Your task to perform on an android device: turn on javascript in the chrome app Image 0: 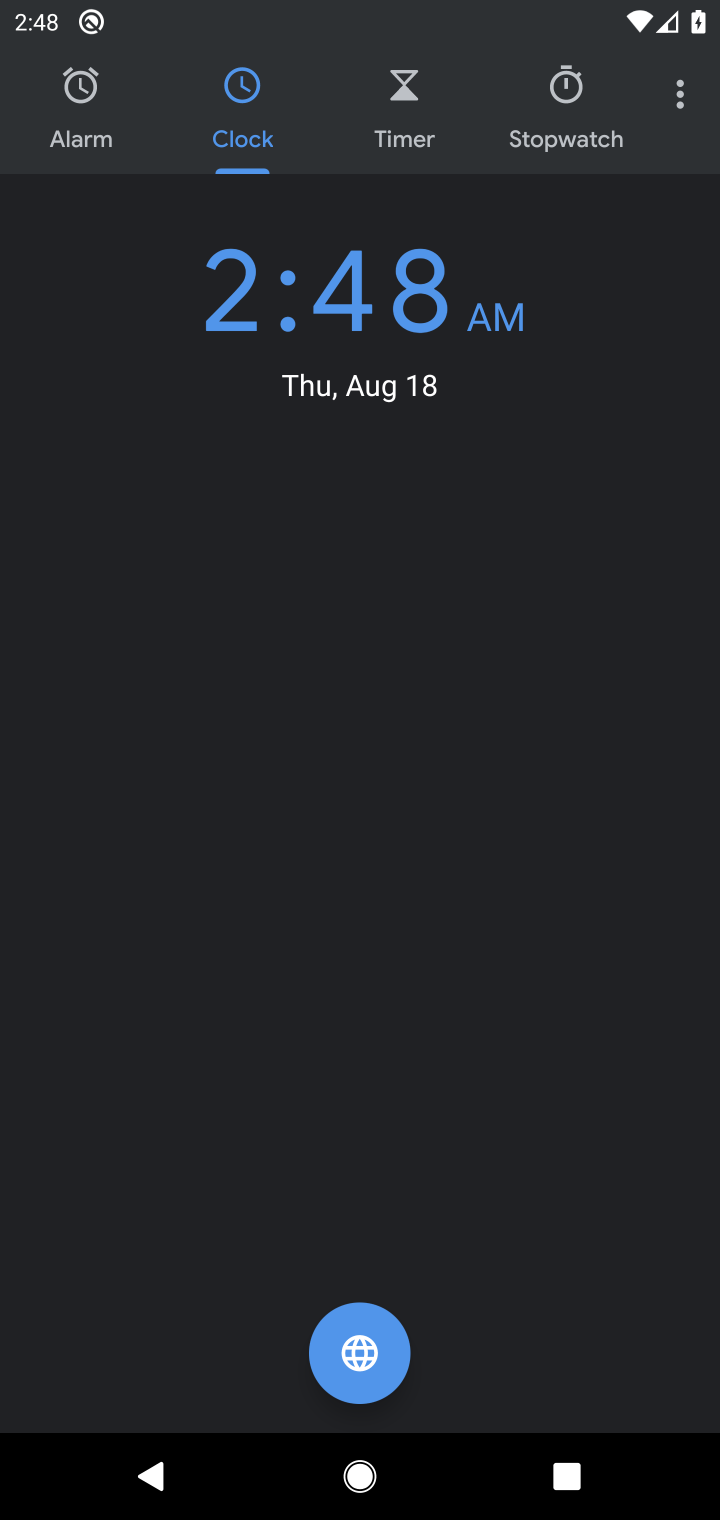
Step 0: press home button
Your task to perform on an android device: turn on javascript in the chrome app Image 1: 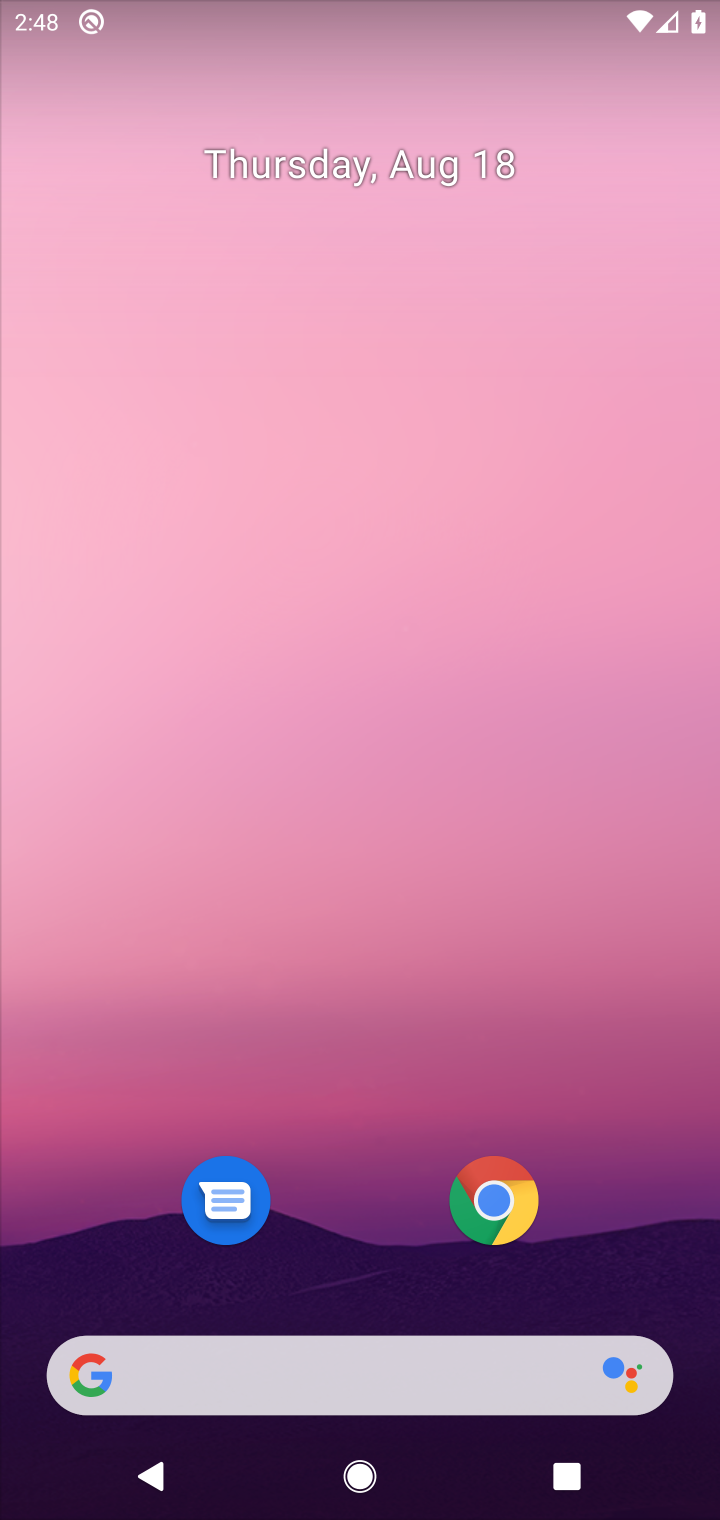
Step 1: drag from (394, 866) to (579, 11)
Your task to perform on an android device: turn on javascript in the chrome app Image 2: 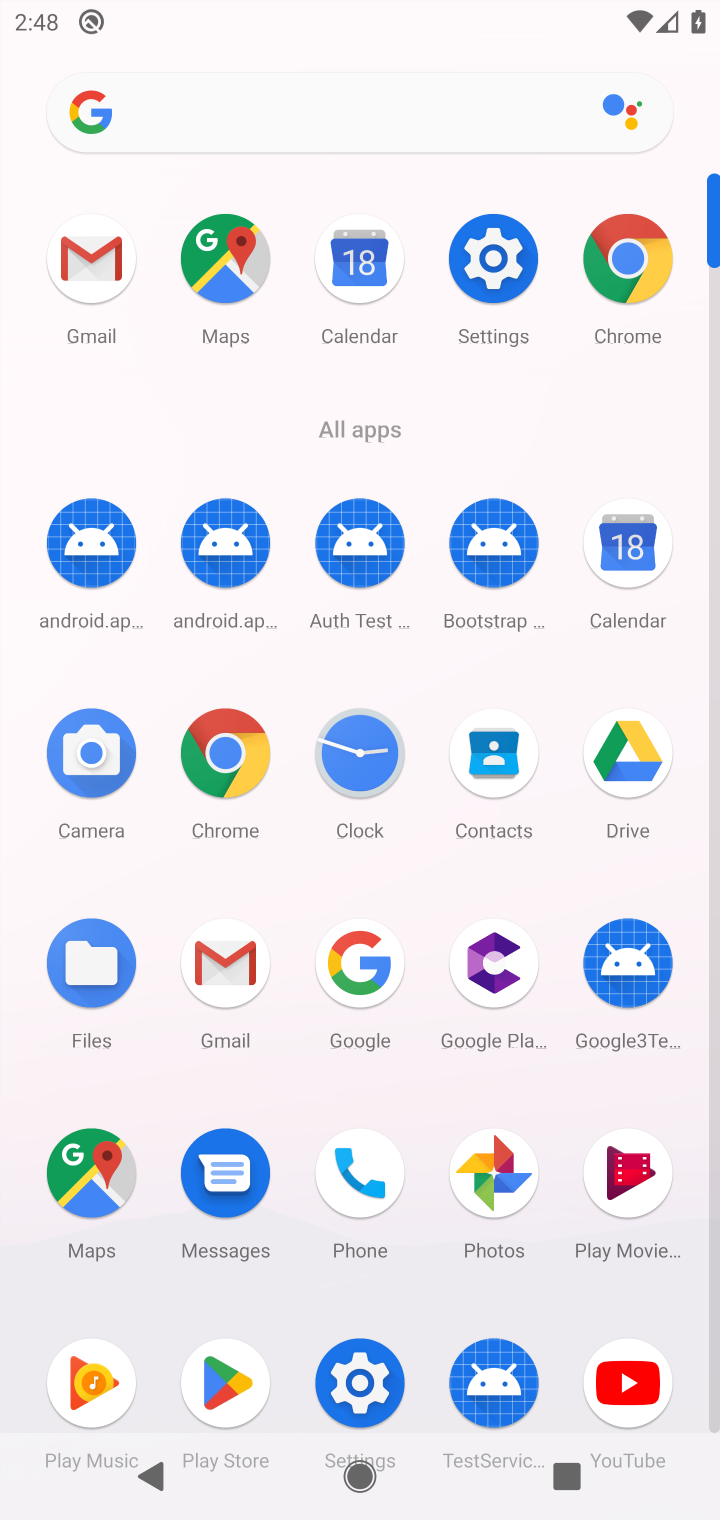
Step 2: click (215, 728)
Your task to perform on an android device: turn on javascript in the chrome app Image 3: 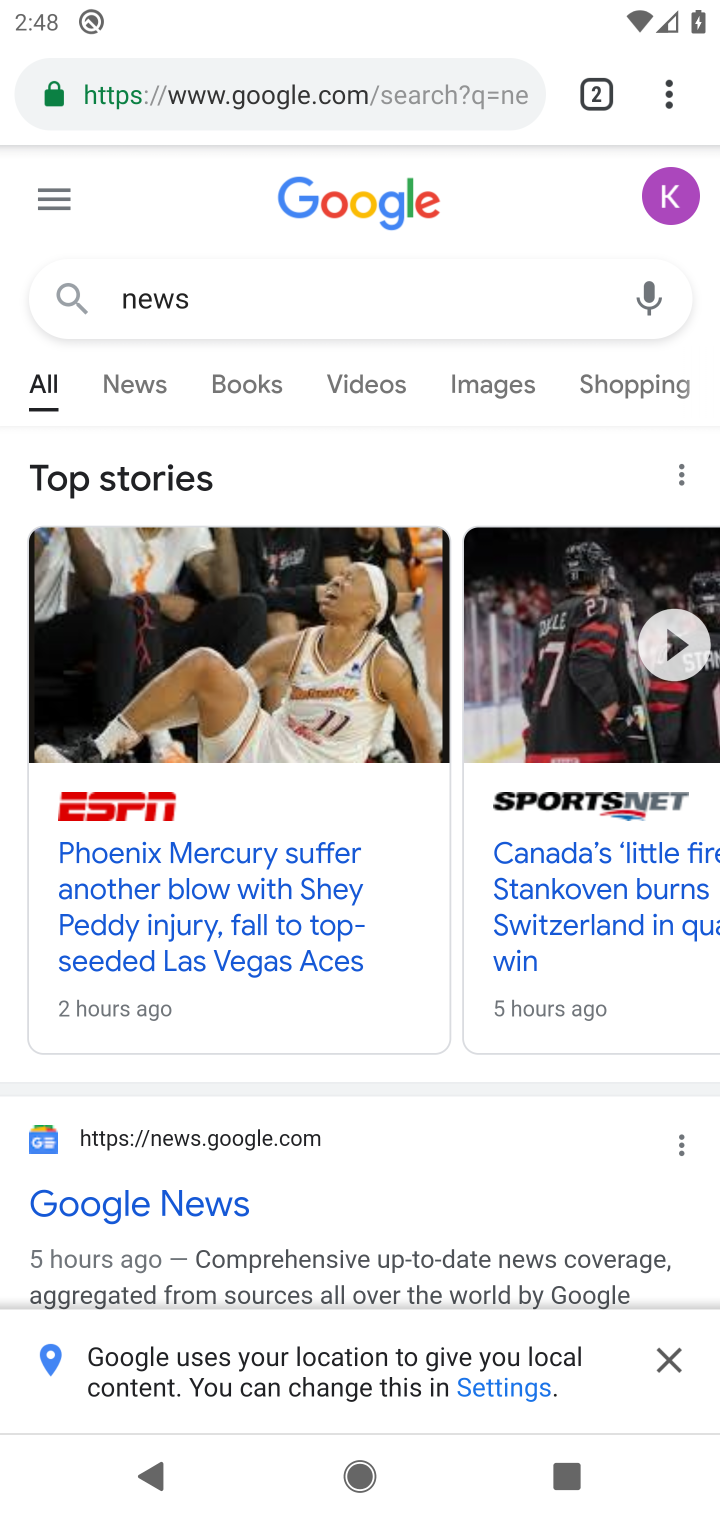
Step 3: click (677, 83)
Your task to perform on an android device: turn on javascript in the chrome app Image 4: 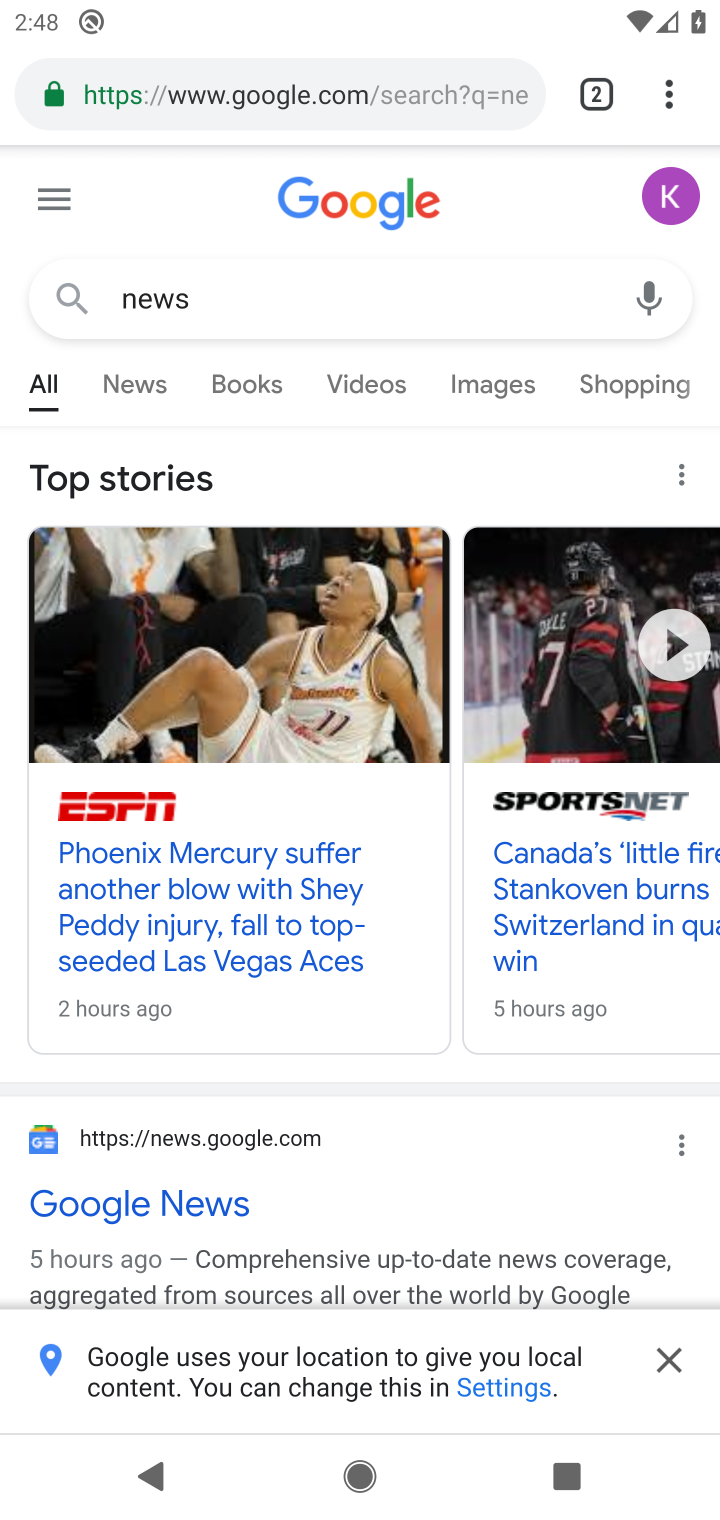
Step 4: drag from (677, 83) to (332, 1070)
Your task to perform on an android device: turn on javascript in the chrome app Image 5: 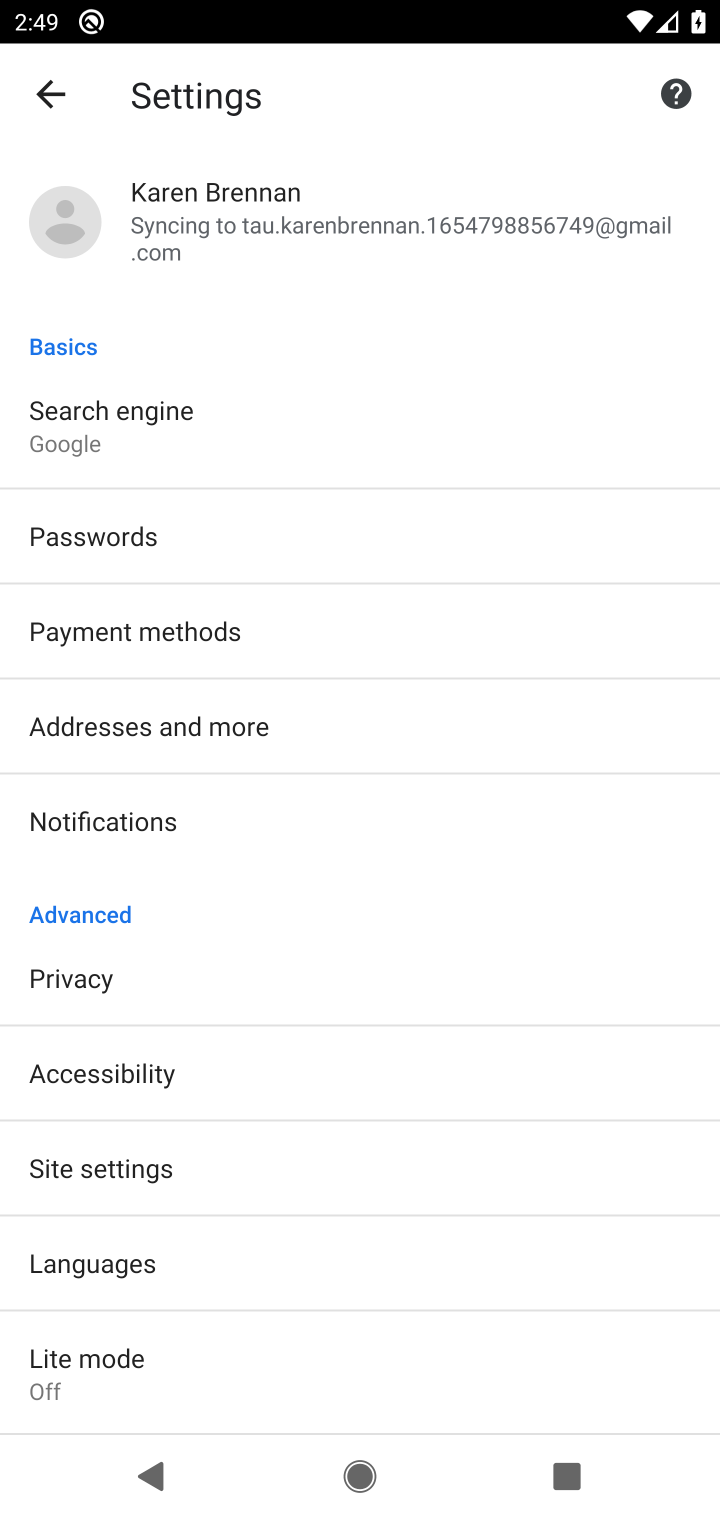
Step 5: click (98, 1164)
Your task to perform on an android device: turn on javascript in the chrome app Image 6: 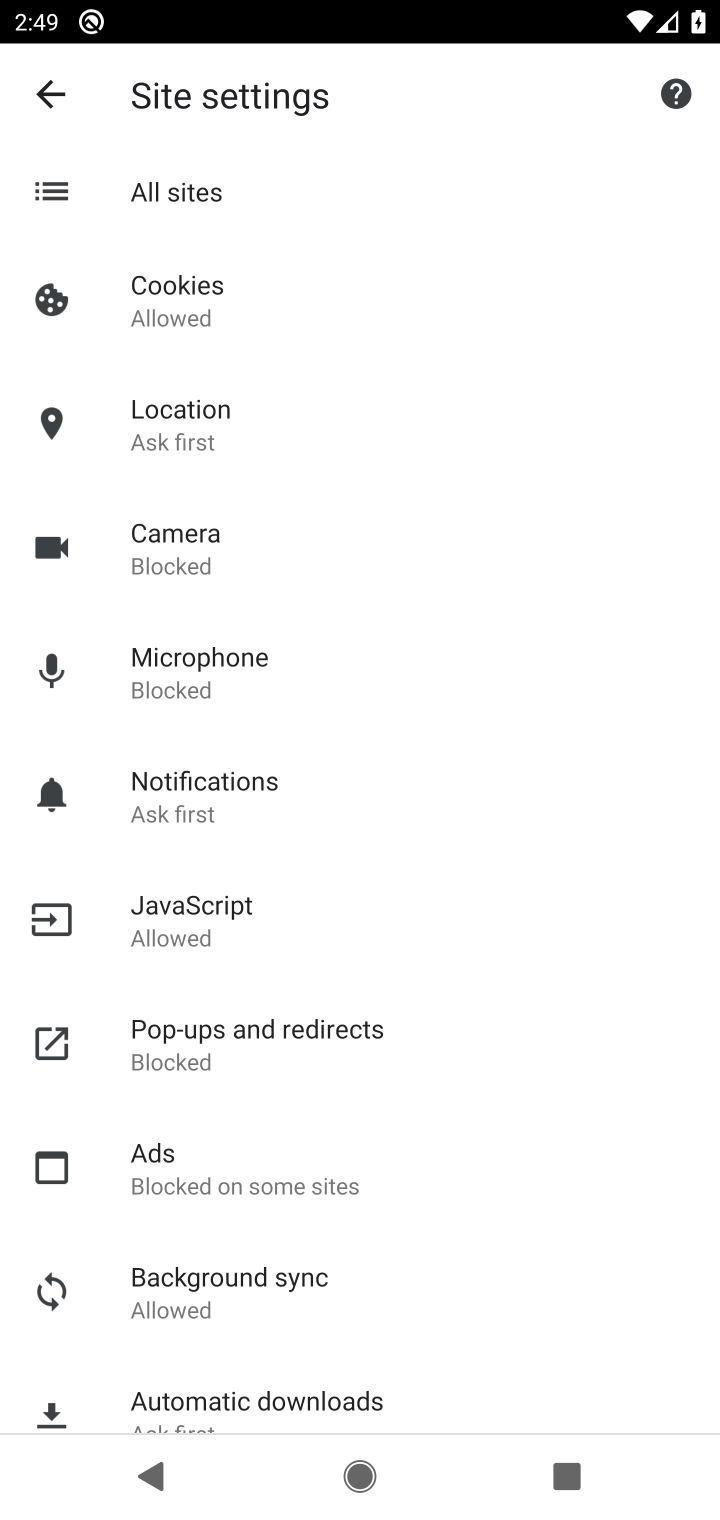
Step 6: click (130, 902)
Your task to perform on an android device: turn on javascript in the chrome app Image 7: 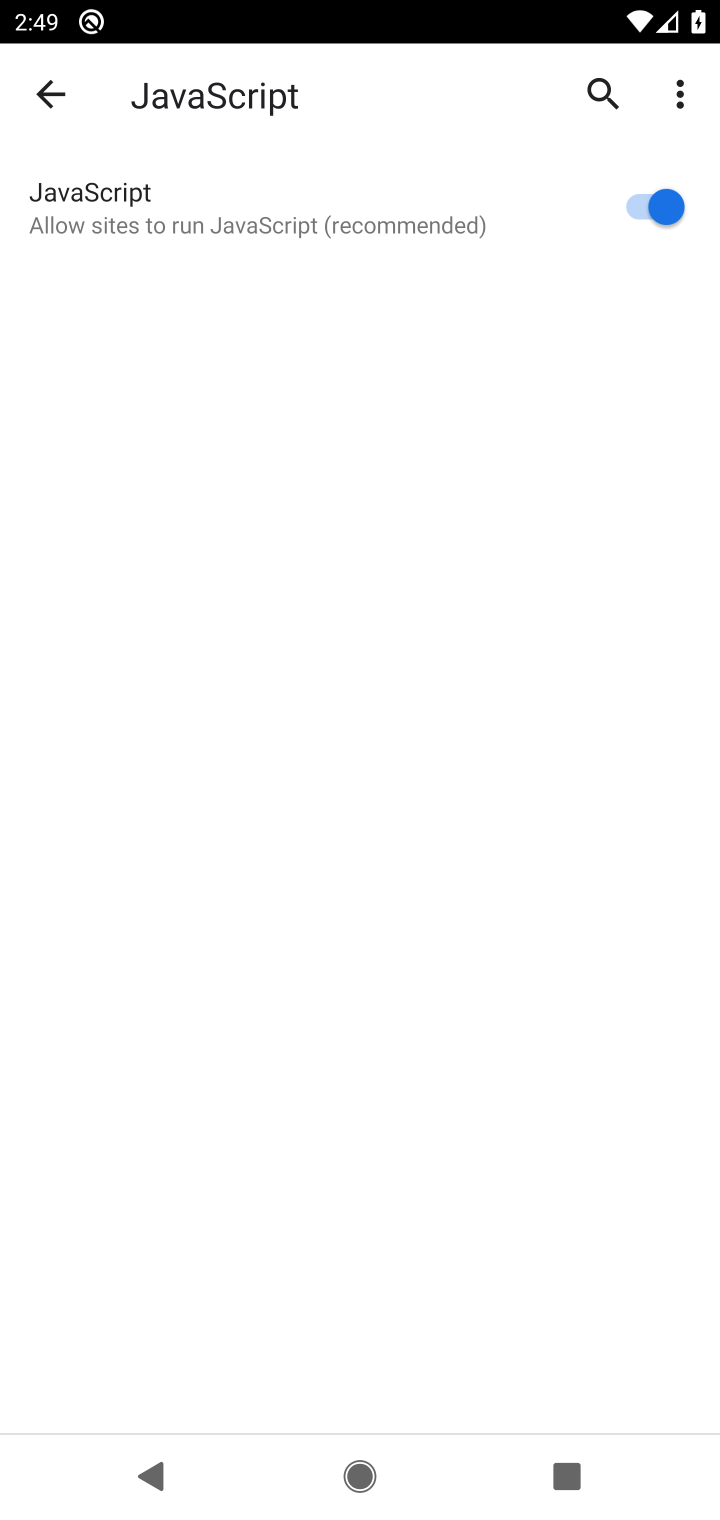
Step 7: task complete